Your task to perform on an android device: change notification settings in the gmail app Image 0: 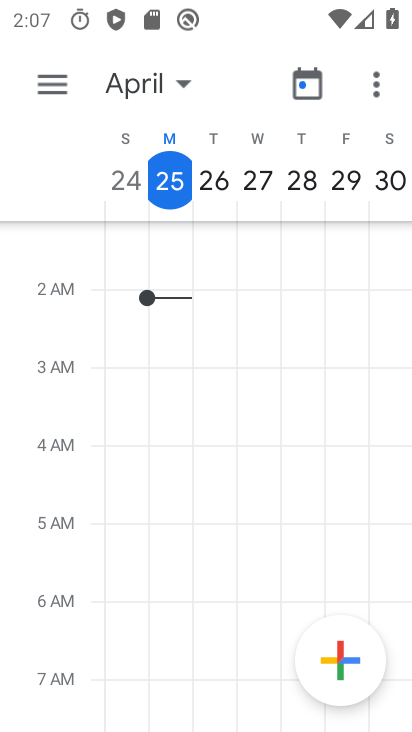
Step 0: press home button
Your task to perform on an android device: change notification settings in the gmail app Image 1: 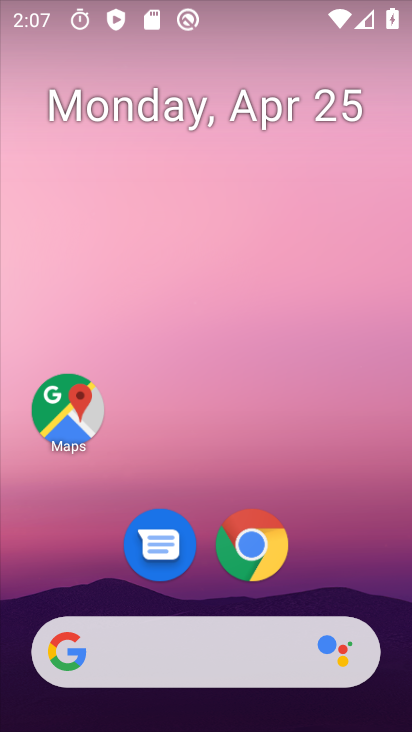
Step 1: drag from (354, 593) to (300, 102)
Your task to perform on an android device: change notification settings in the gmail app Image 2: 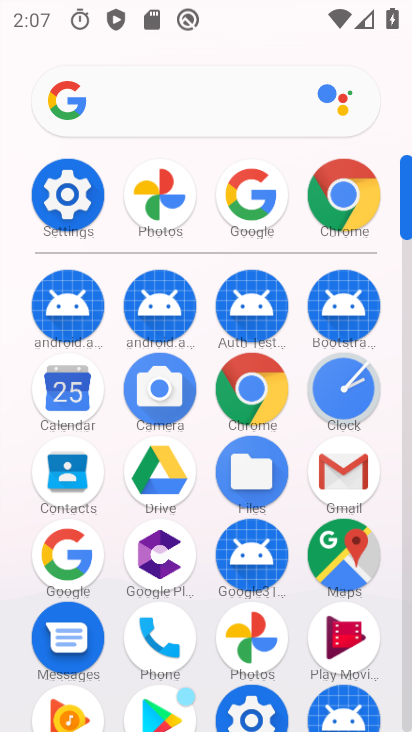
Step 2: click (341, 463)
Your task to perform on an android device: change notification settings in the gmail app Image 3: 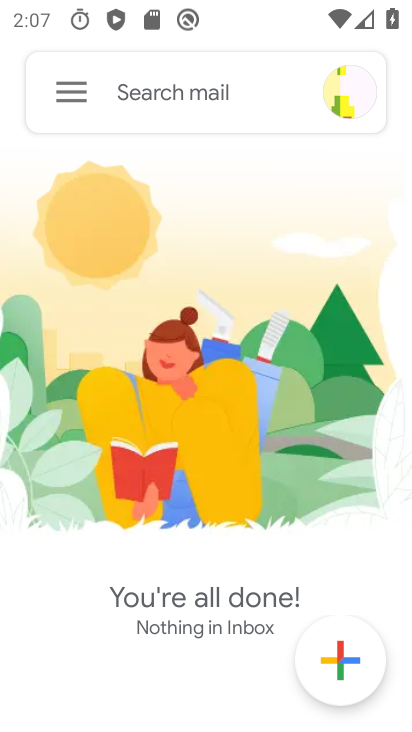
Step 3: click (71, 90)
Your task to perform on an android device: change notification settings in the gmail app Image 4: 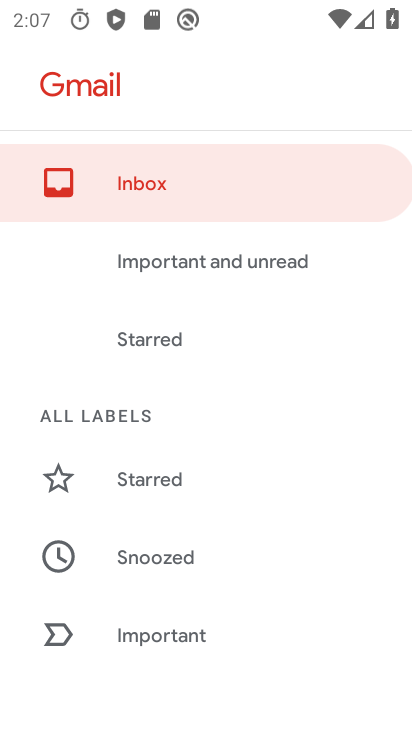
Step 4: drag from (224, 512) to (223, 182)
Your task to perform on an android device: change notification settings in the gmail app Image 5: 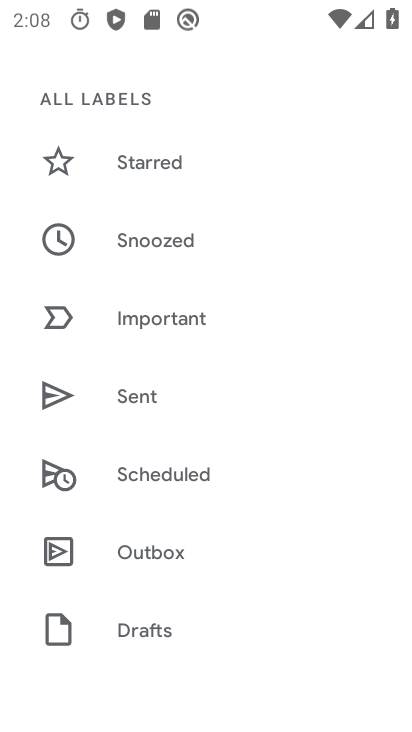
Step 5: drag from (239, 580) to (239, 223)
Your task to perform on an android device: change notification settings in the gmail app Image 6: 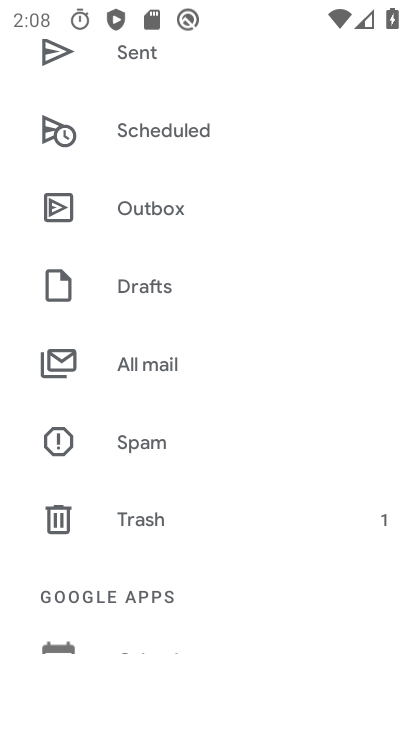
Step 6: drag from (243, 539) to (239, 217)
Your task to perform on an android device: change notification settings in the gmail app Image 7: 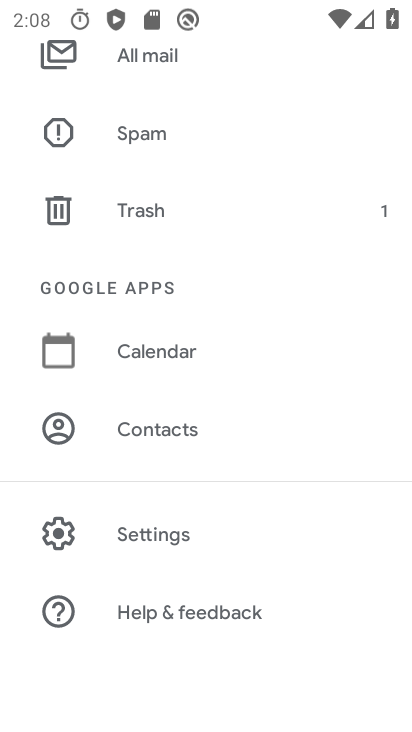
Step 7: click (209, 528)
Your task to perform on an android device: change notification settings in the gmail app Image 8: 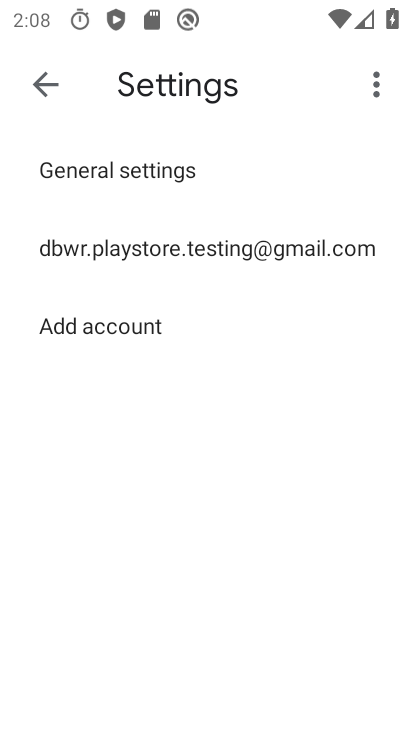
Step 8: click (199, 184)
Your task to perform on an android device: change notification settings in the gmail app Image 9: 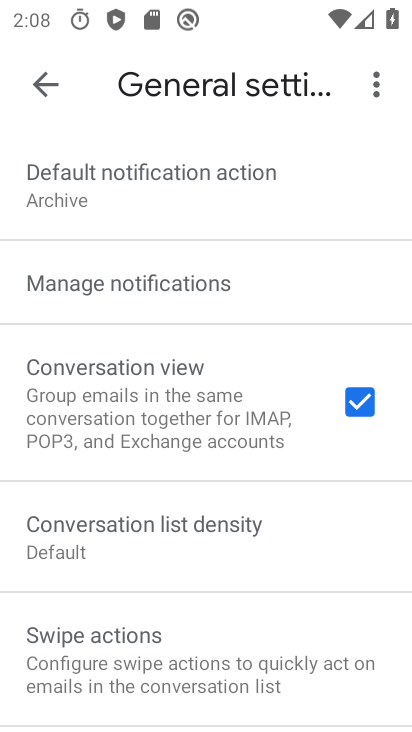
Step 9: click (188, 297)
Your task to perform on an android device: change notification settings in the gmail app Image 10: 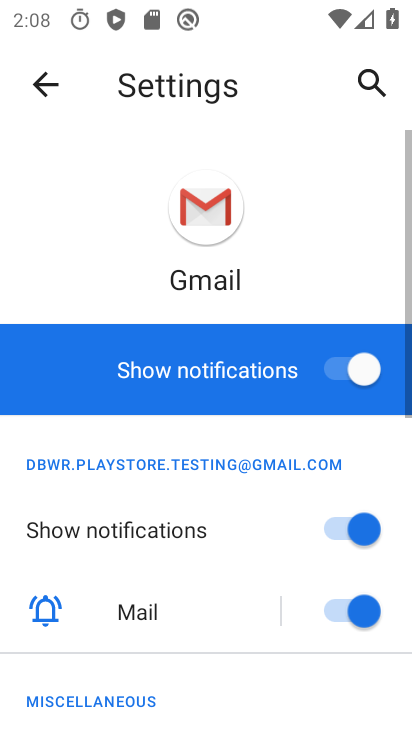
Step 10: click (339, 367)
Your task to perform on an android device: change notification settings in the gmail app Image 11: 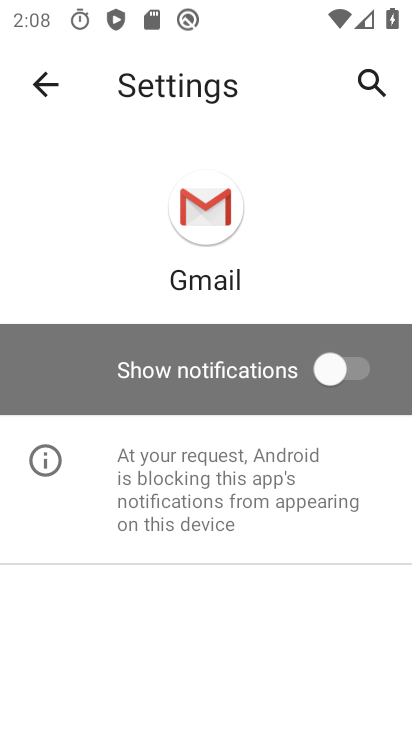
Step 11: task complete